Your task to perform on an android device: turn on sleep mode Image 0: 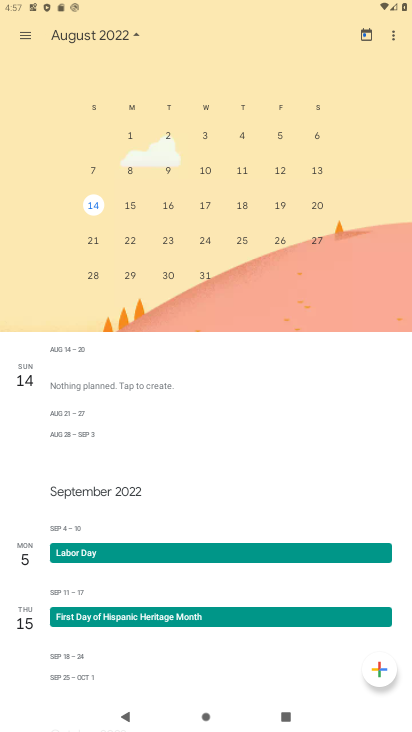
Step 0: press home button
Your task to perform on an android device: turn on sleep mode Image 1: 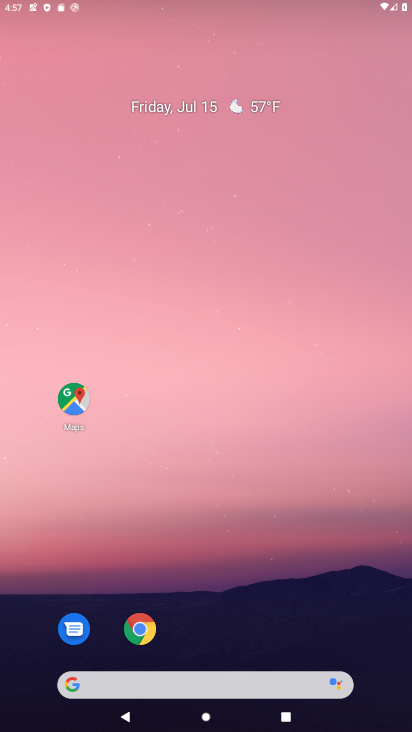
Step 1: drag from (312, 566) to (289, 76)
Your task to perform on an android device: turn on sleep mode Image 2: 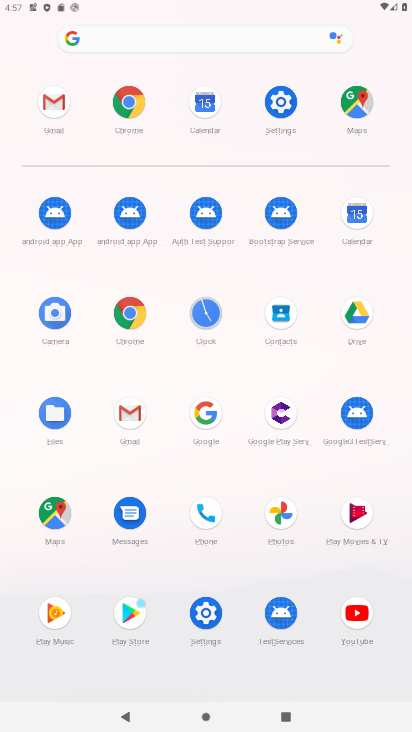
Step 2: click (281, 107)
Your task to perform on an android device: turn on sleep mode Image 3: 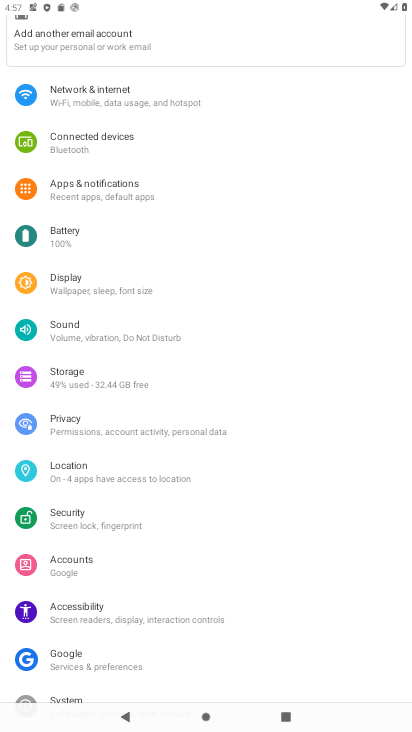
Step 3: click (121, 284)
Your task to perform on an android device: turn on sleep mode Image 4: 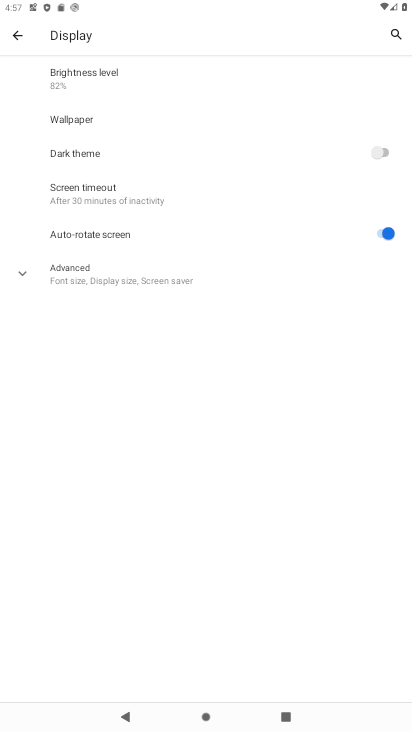
Step 4: click (20, 269)
Your task to perform on an android device: turn on sleep mode Image 5: 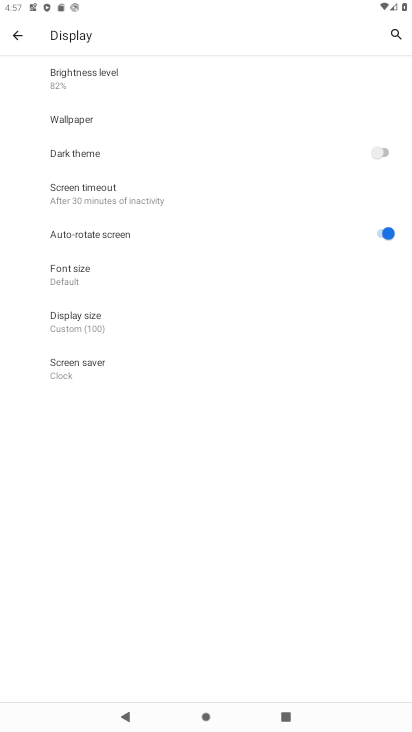
Step 5: task complete